Your task to perform on an android device: Is it going to rain today? Image 0: 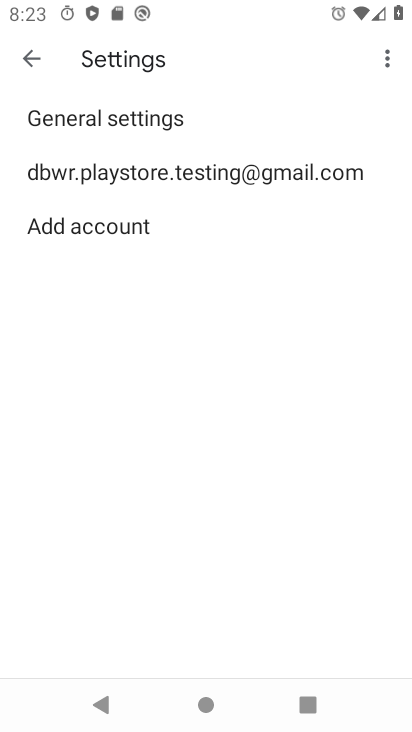
Step 0: press home button
Your task to perform on an android device: Is it going to rain today? Image 1: 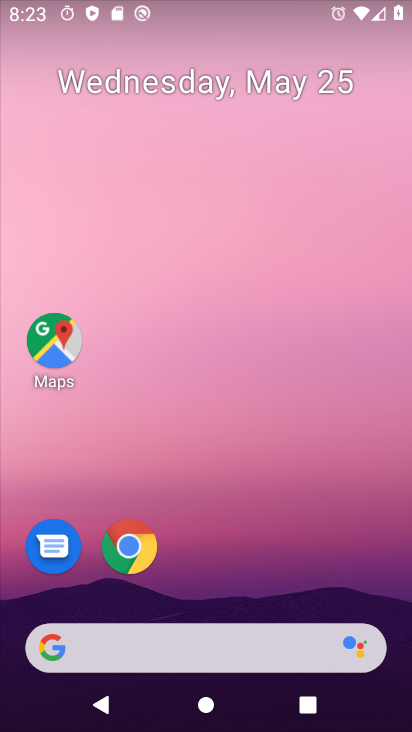
Step 1: click (174, 639)
Your task to perform on an android device: Is it going to rain today? Image 2: 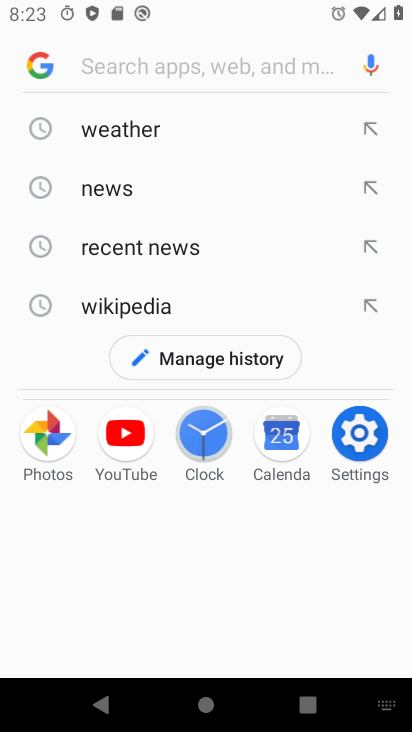
Step 2: click (150, 132)
Your task to perform on an android device: Is it going to rain today? Image 3: 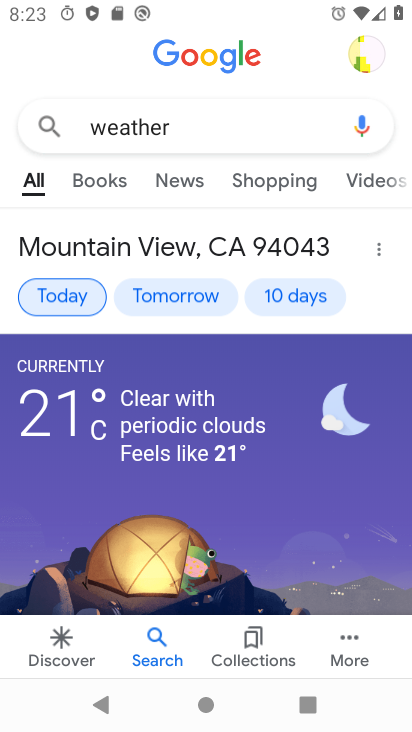
Step 3: task complete